Your task to perform on an android device: open a bookmark in the chrome app Image 0: 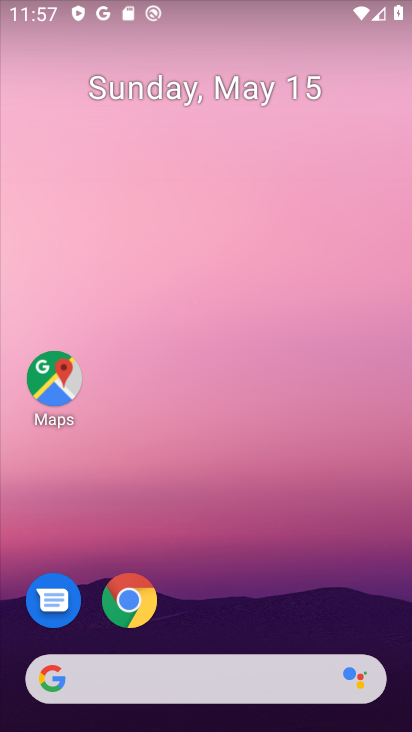
Step 0: click (130, 600)
Your task to perform on an android device: open a bookmark in the chrome app Image 1: 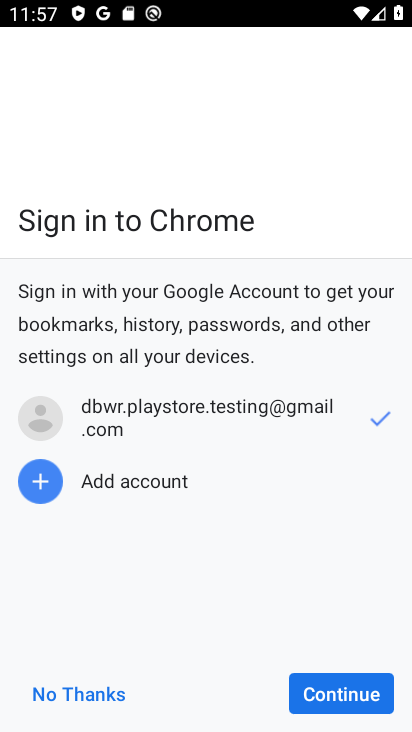
Step 1: click (348, 692)
Your task to perform on an android device: open a bookmark in the chrome app Image 2: 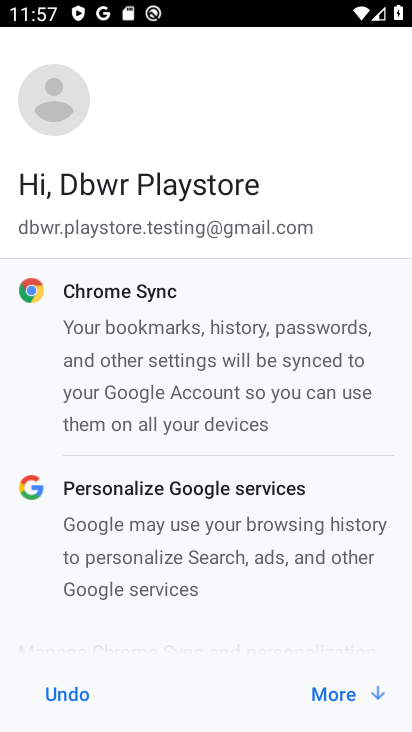
Step 2: click (348, 692)
Your task to perform on an android device: open a bookmark in the chrome app Image 3: 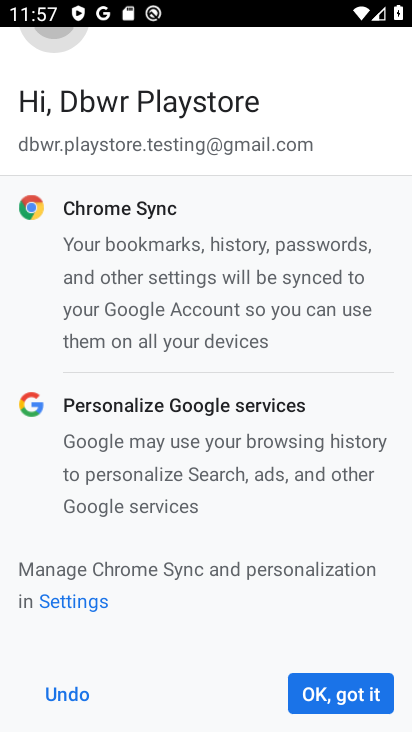
Step 3: click (311, 685)
Your task to perform on an android device: open a bookmark in the chrome app Image 4: 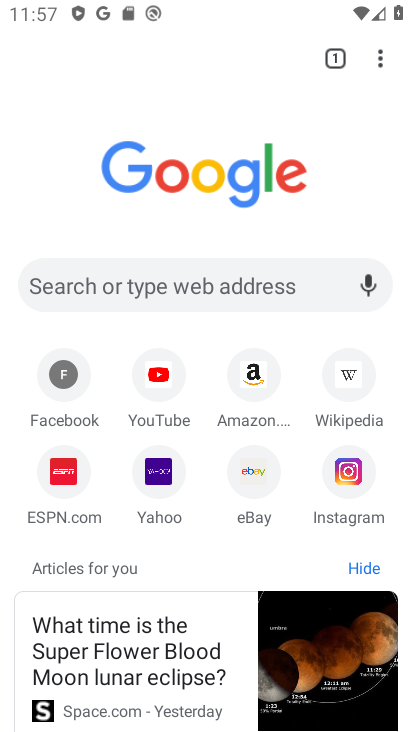
Step 4: click (380, 62)
Your task to perform on an android device: open a bookmark in the chrome app Image 5: 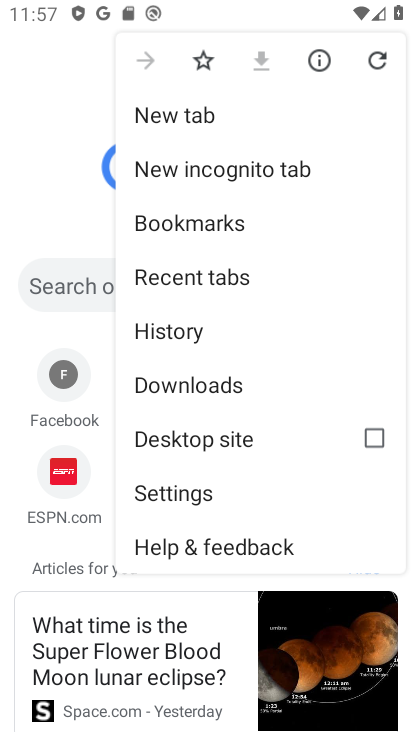
Step 5: click (192, 222)
Your task to perform on an android device: open a bookmark in the chrome app Image 6: 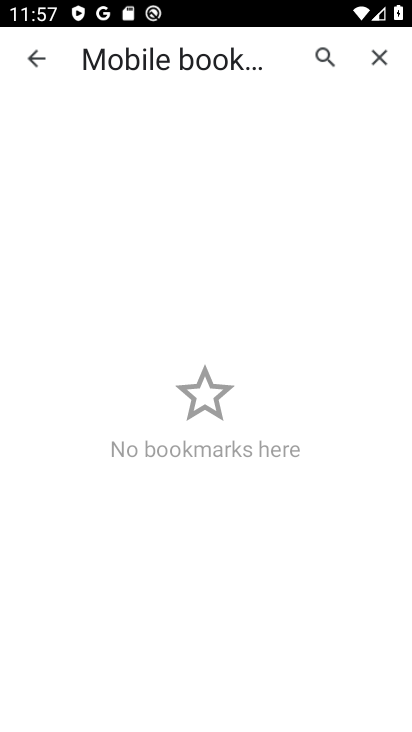
Step 6: task complete